Your task to perform on an android device: Open Google Image 0: 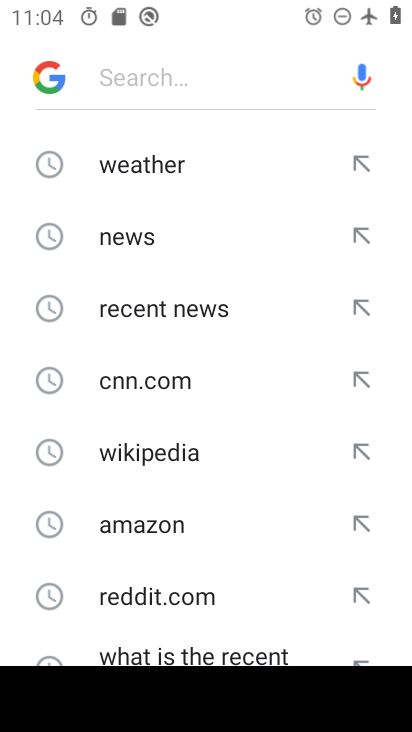
Step 0: press home button
Your task to perform on an android device: Open Google Image 1: 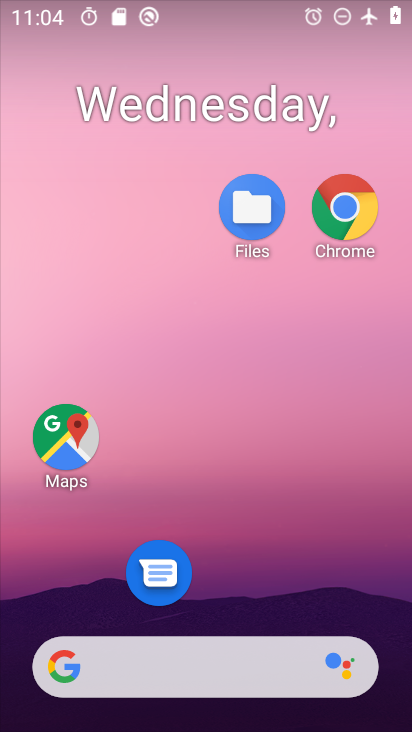
Step 1: drag from (250, 656) to (306, 109)
Your task to perform on an android device: Open Google Image 2: 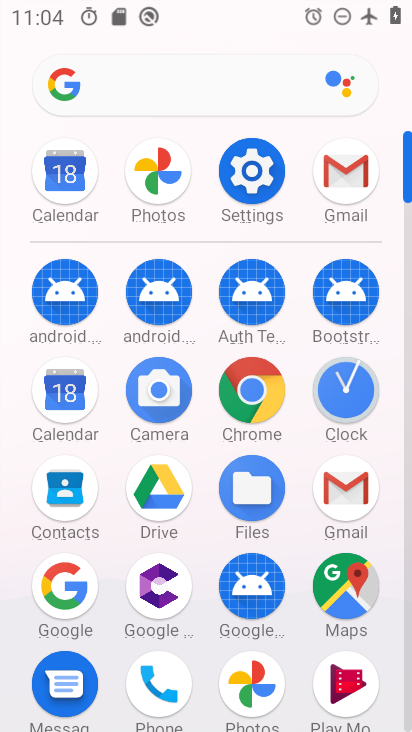
Step 2: click (66, 583)
Your task to perform on an android device: Open Google Image 3: 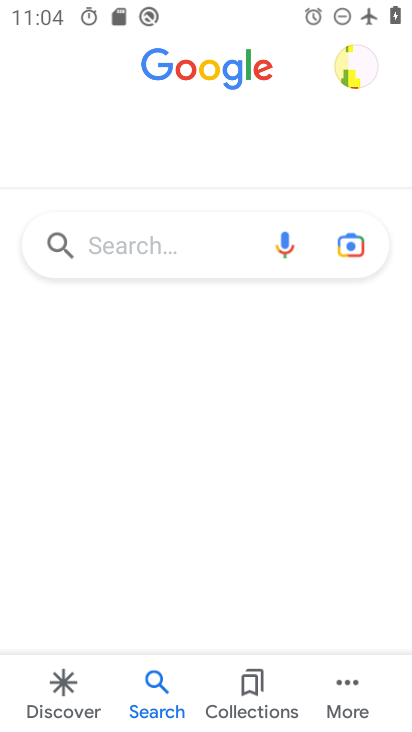
Step 3: task complete